Your task to perform on an android device: turn off notifications settings in the gmail app Image 0: 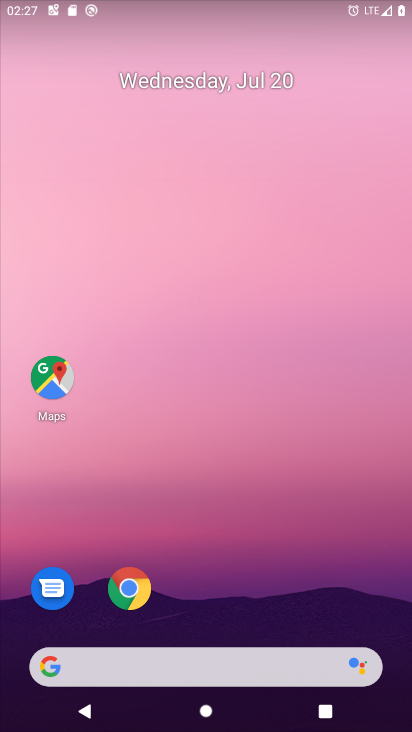
Step 0: drag from (260, 656) to (328, 316)
Your task to perform on an android device: turn off notifications settings in the gmail app Image 1: 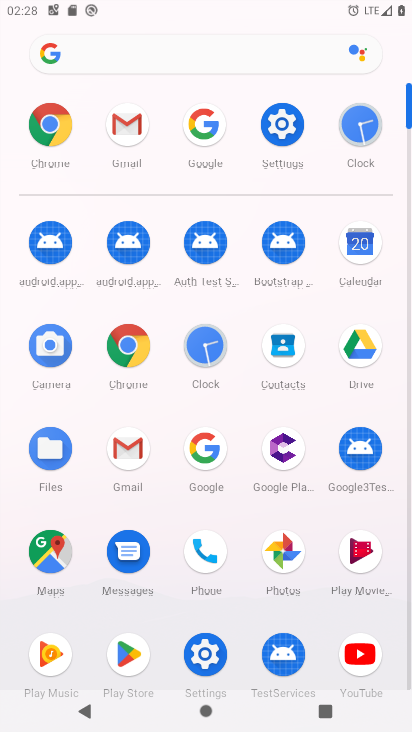
Step 1: click (124, 443)
Your task to perform on an android device: turn off notifications settings in the gmail app Image 2: 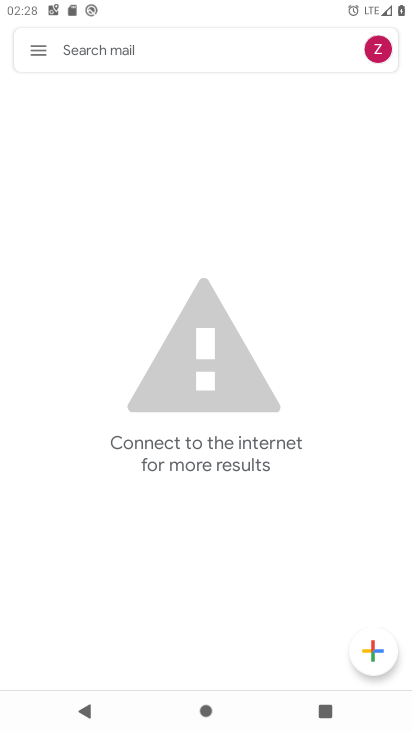
Step 2: click (47, 42)
Your task to perform on an android device: turn off notifications settings in the gmail app Image 3: 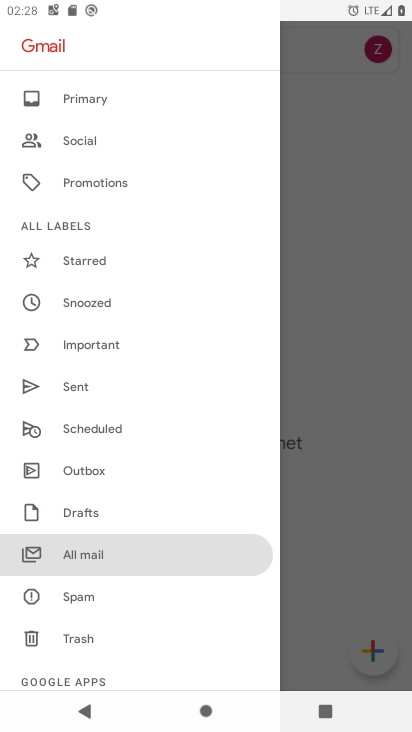
Step 3: drag from (117, 654) to (126, 293)
Your task to perform on an android device: turn off notifications settings in the gmail app Image 4: 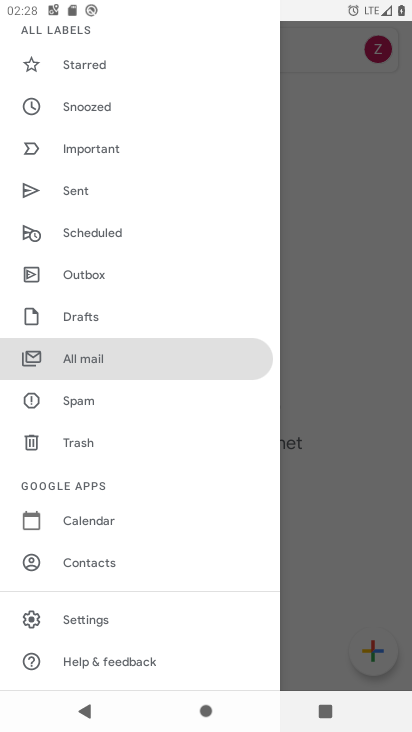
Step 4: click (80, 620)
Your task to perform on an android device: turn off notifications settings in the gmail app Image 5: 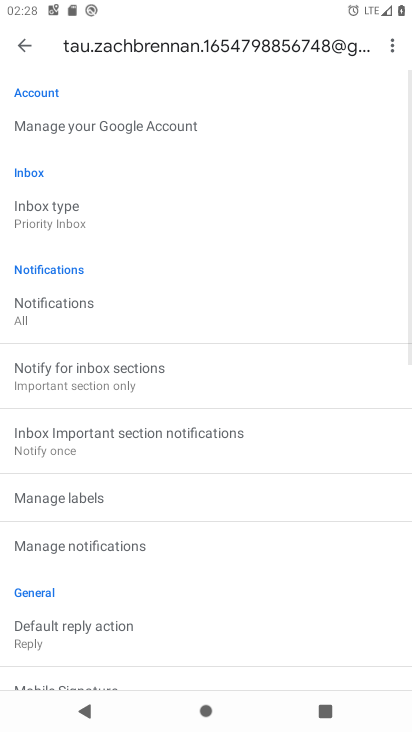
Step 5: click (89, 310)
Your task to perform on an android device: turn off notifications settings in the gmail app Image 6: 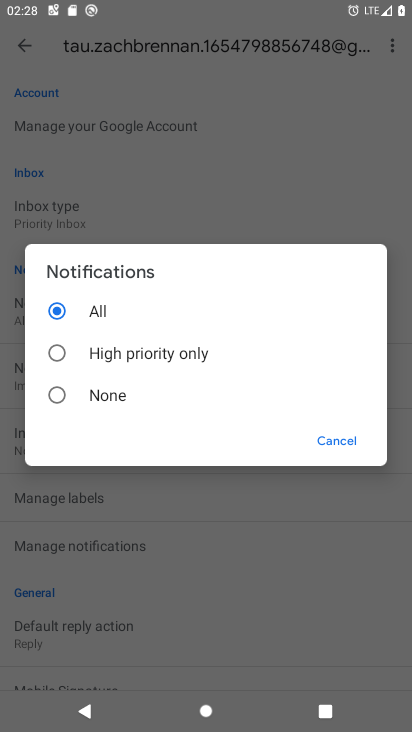
Step 6: click (97, 387)
Your task to perform on an android device: turn off notifications settings in the gmail app Image 7: 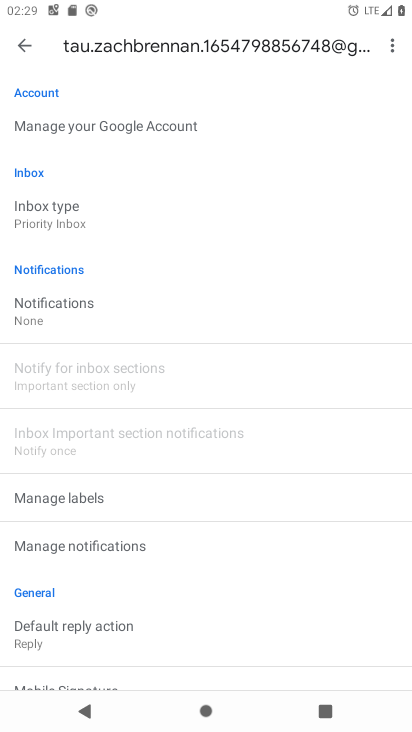
Step 7: task complete